Your task to perform on an android device: delete a single message in the gmail app Image 0: 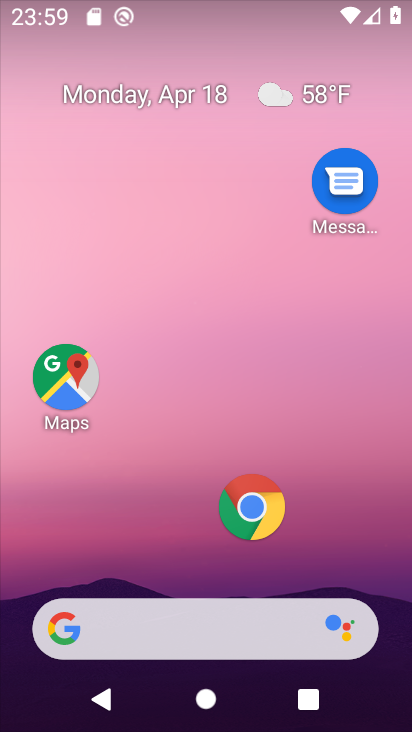
Step 0: drag from (183, 559) to (291, 1)
Your task to perform on an android device: delete a single message in the gmail app Image 1: 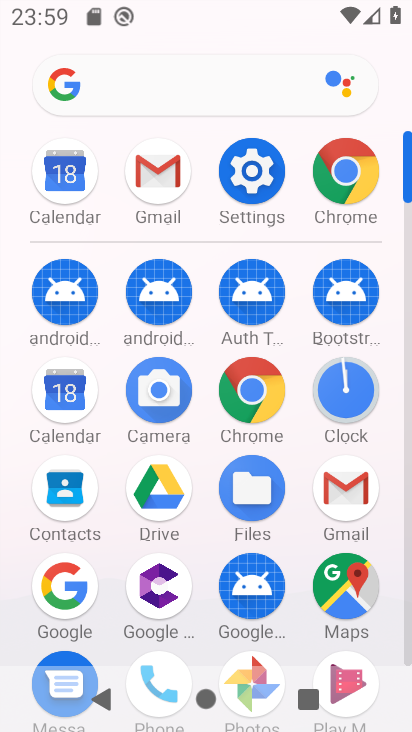
Step 1: click (340, 494)
Your task to perform on an android device: delete a single message in the gmail app Image 2: 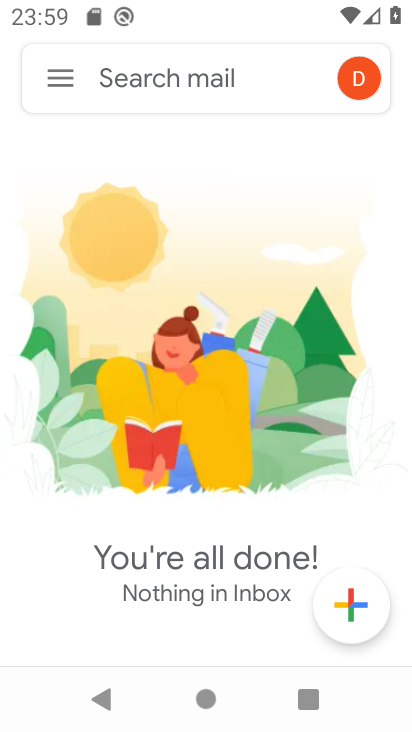
Step 2: click (72, 80)
Your task to perform on an android device: delete a single message in the gmail app Image 3: 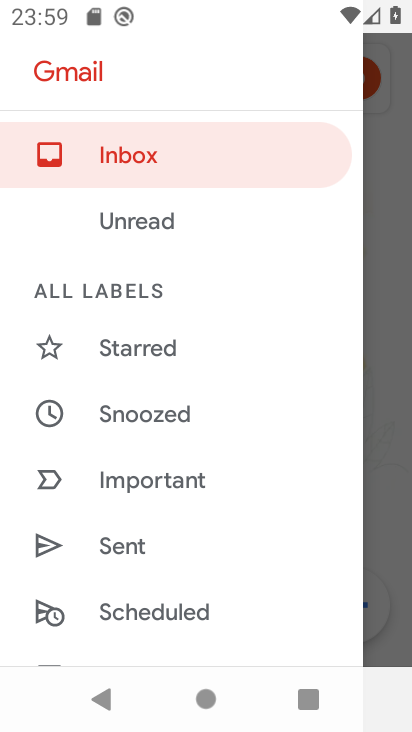
Step 3: drag from (121, 536) to (189, 216)
Your task to perform on an android device: delete a single message in the gmail app Image 4: 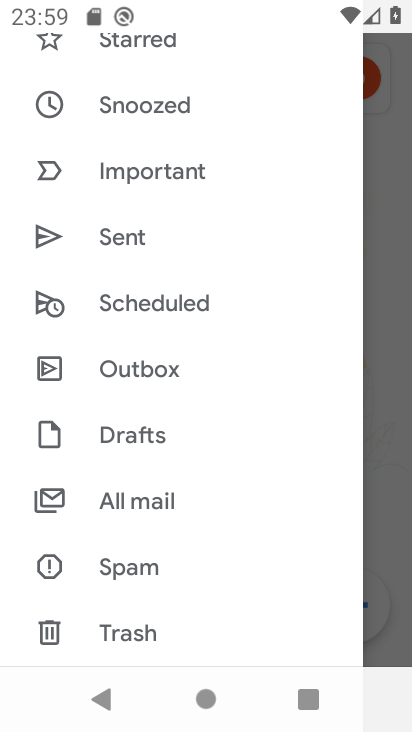
Step 4: click (134, 500)
Your task to perform on an android device: delete a single message in the gmail app Image 5: 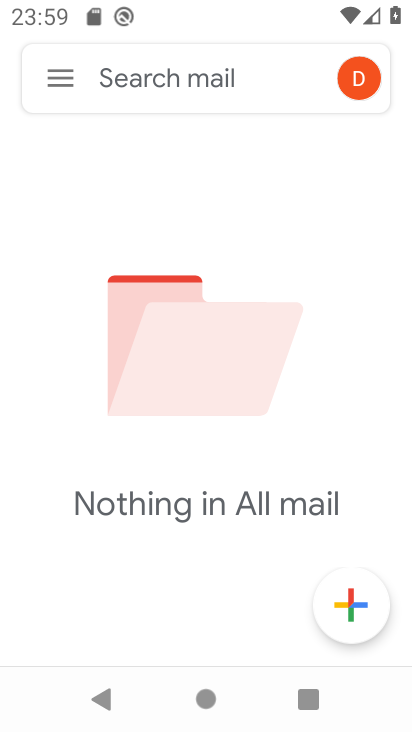
Step 5: task complete